Your task to perform on an android device: turn off priority inbox in the gmail app Image 0: 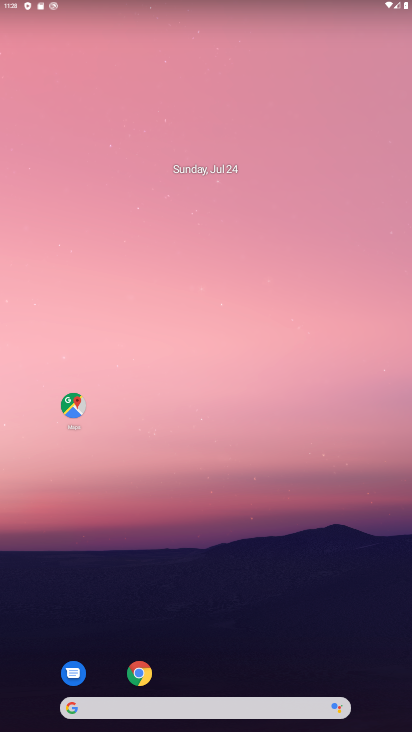
Step 0: drag from (189, 520) to (328, 2)
Your task to perform on an android device: turn off priority inbox in the gmail app Image 1: 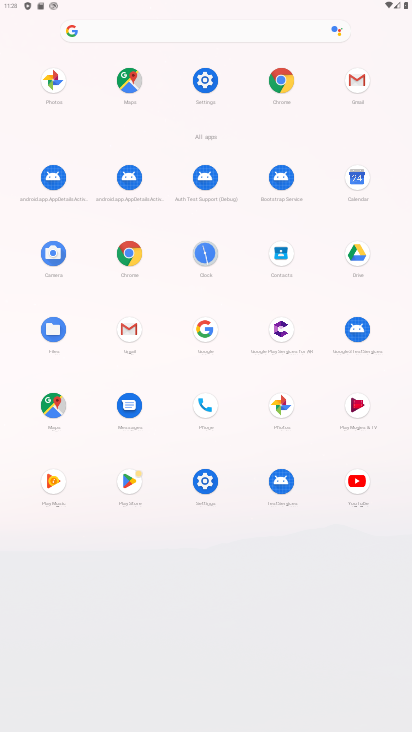
Step 1: click (361, 78)
Your task to perform on an android device: turn off priority inbox in the gmail app Image 2: 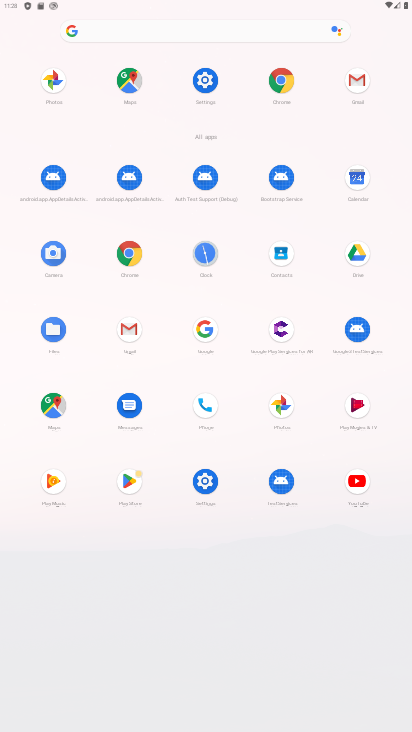
Step 2: click (361, 78)
Your task to perform on an android device: turn off priority inbox in the gmail app Image 3: 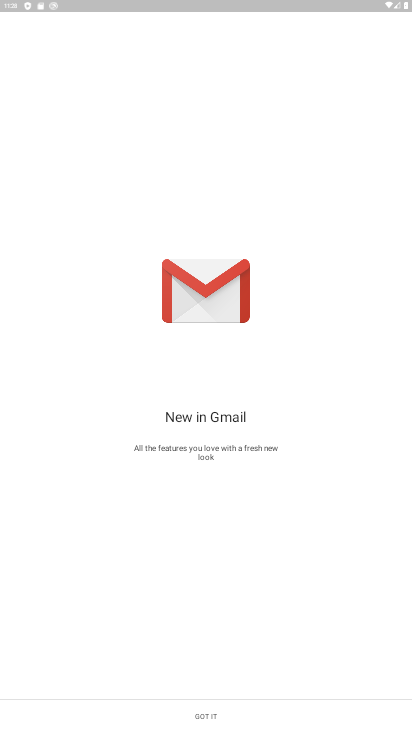
Step 3: click (215, 710)
Your task to perform on an android device: turn off priority inbox in the gmail app Image 4: 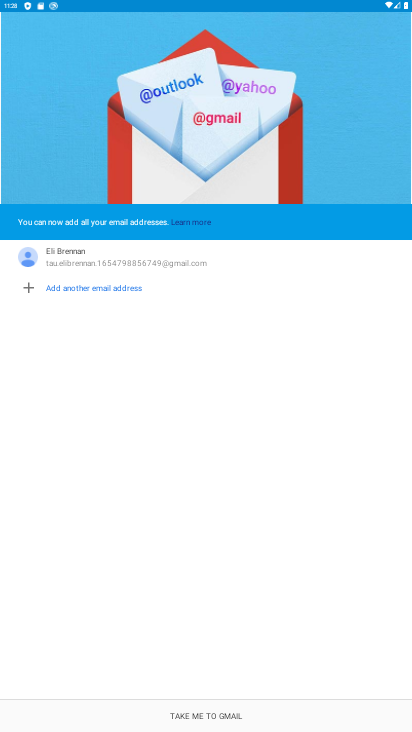
Step 4: click (212, 712)
Your task to perform on an android device: turn off priority inbox in the gmail app Image 5: 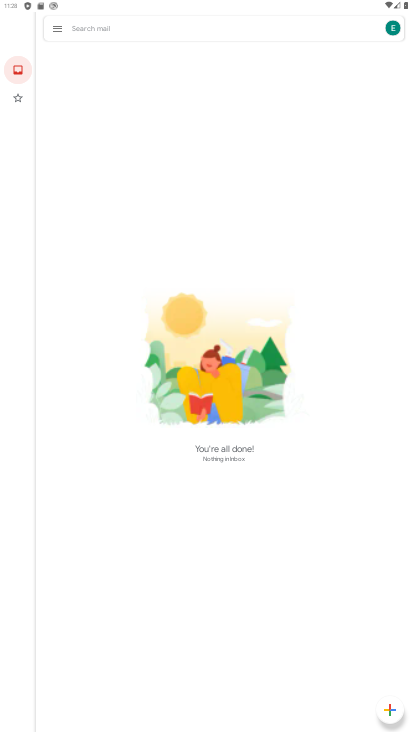
Step 5: click (54, 34)
Your task to perform on an android device: turn off priority inbox in the gmail app Image 6: 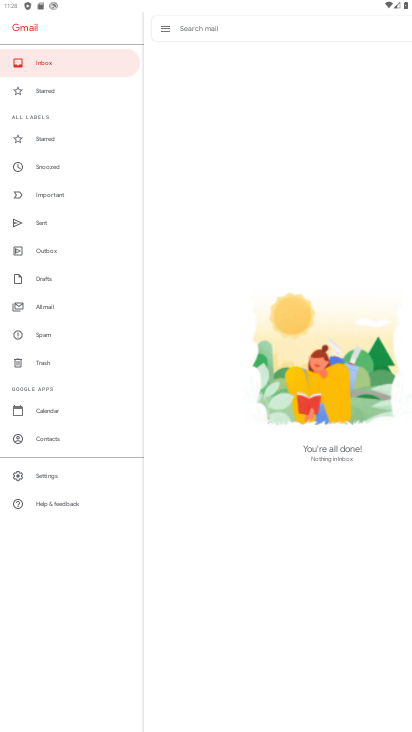
Step 6: click (51, 476)
Your task to perform on an android device: turn off priority inbox in the gmail app Image 7: 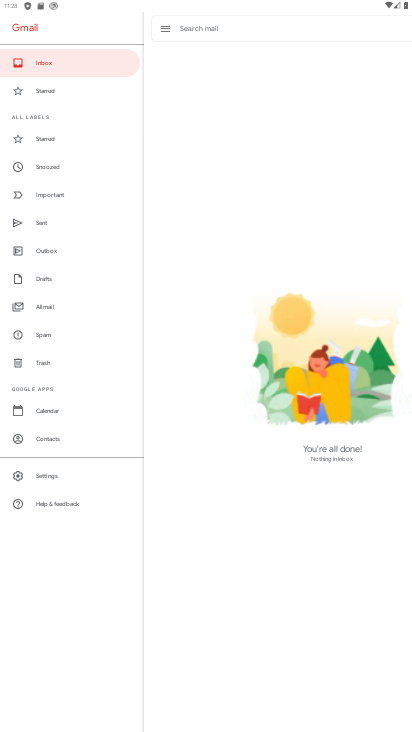
Step 7: click (51, 476)
Your task to perform on an android device: turn off priority inbox in the gmail app Image 8: 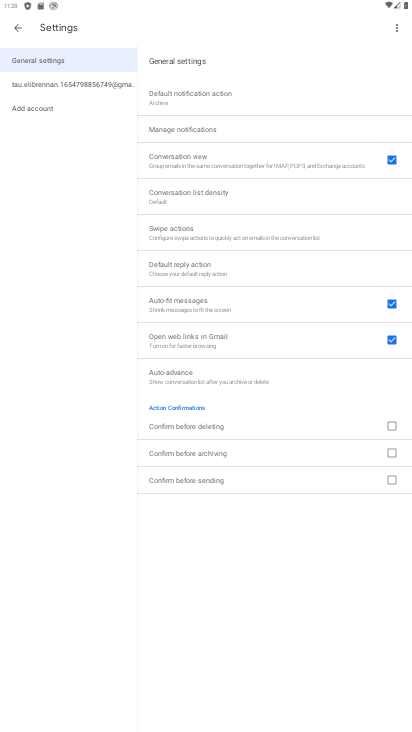
Step 8: click (97, 81)
Your task to perform on an android device: turn off priority inbox in the gmail app Image 9: 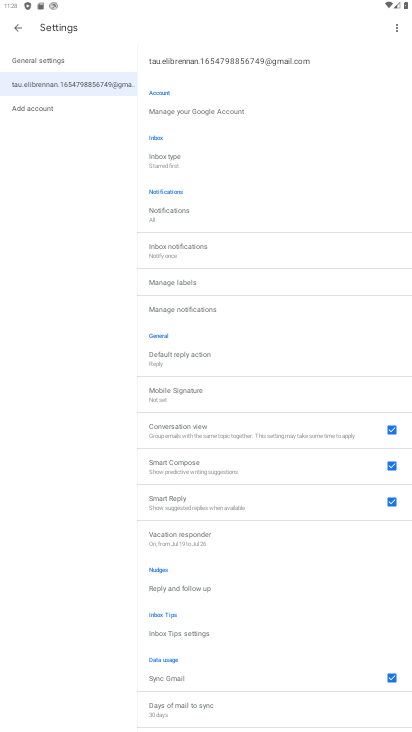
Step 9: click (169, 157)
Your task to perform on an android device: turn off priority inbox in the gmail app Image 10: 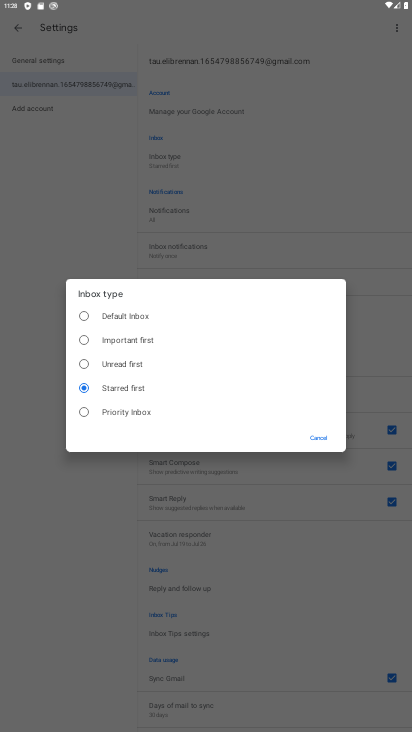
Step 10: click (115, 311)
Your task to perform on an android device: turn off priority inbox in the gmail app Image 11: 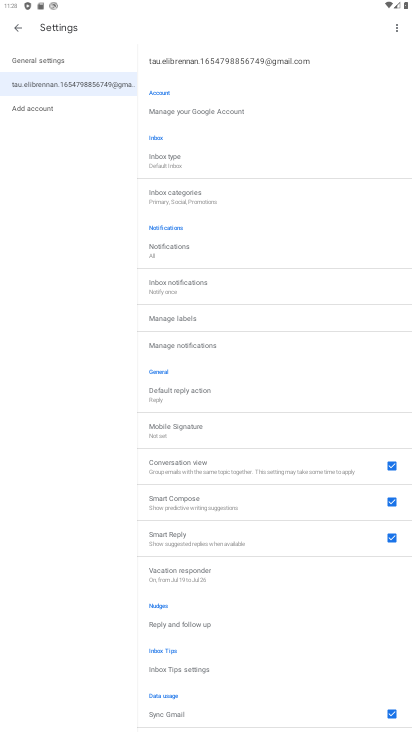
Step 11: task complete